Your task to perform on an android device: turn notification dots off Image 0: 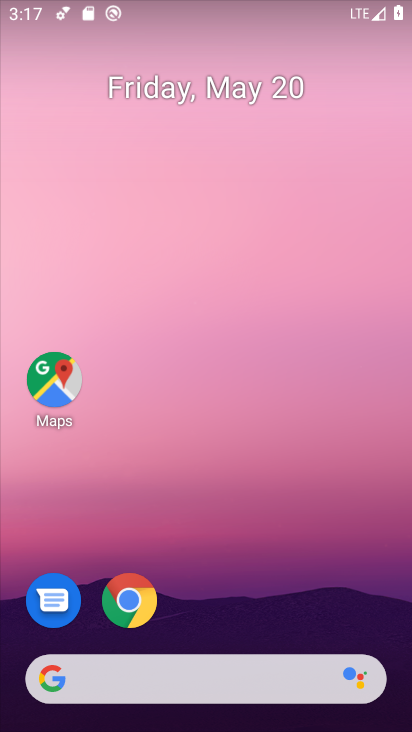
Step 0: drag from (329, 615) to (323, 160)
Your task to perform on an android device: turn notification dots off Image 1: 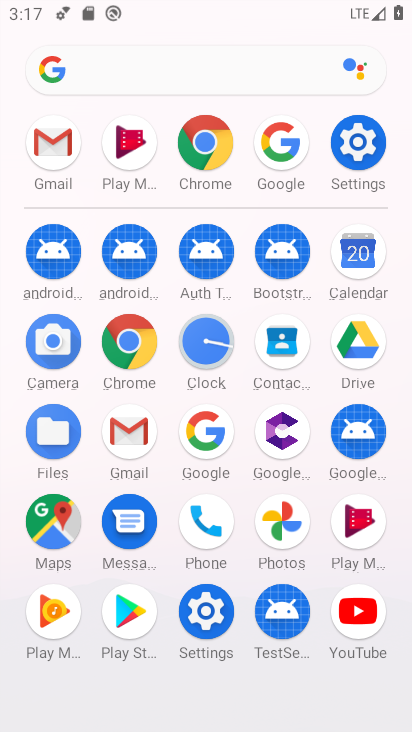
Step 1: click (357, 146)
Your task to perform on an android device: turn notification dots off Image 2: 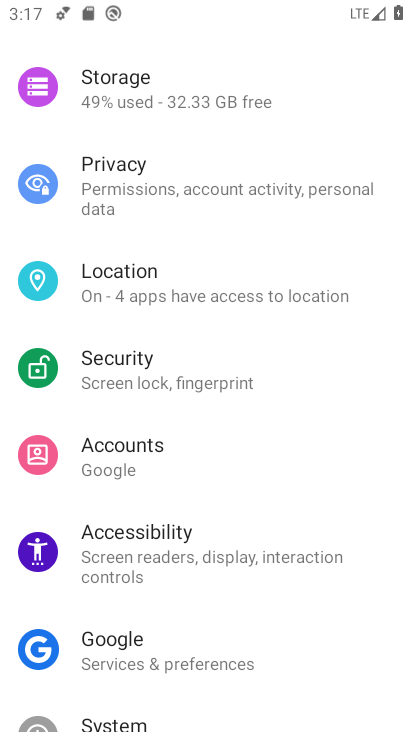
Step 2: drag from (366, 292) to (365, 516)
Your task to perform on an android device: turn notification dots off Image 3: 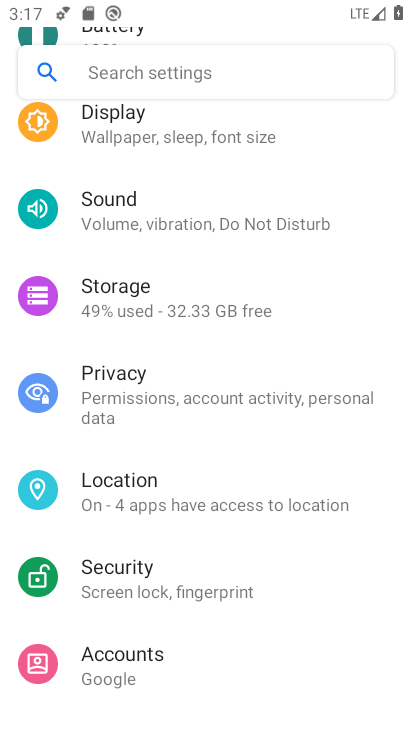
Step 3: drag from (361, 295) to (359, 528)
Your task to perform on an android device: turn notification dots off Image 4: 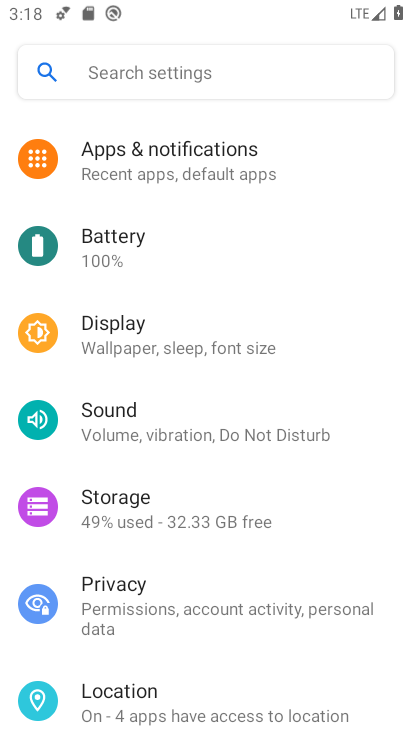
Step 4: drag from (357, 310) to (356, 506)
Your task to perform on an android device: turn notification dots off Image 5: 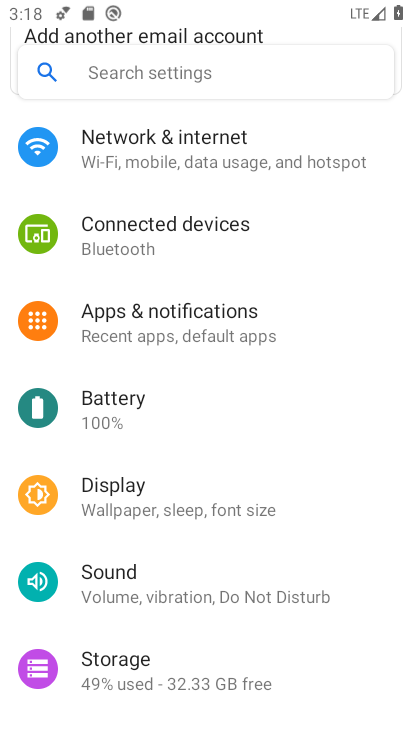
Step 5: drag from (355, 277) to (355, 471)
Your task to perform on an android device: turn notification dots off Image 6: 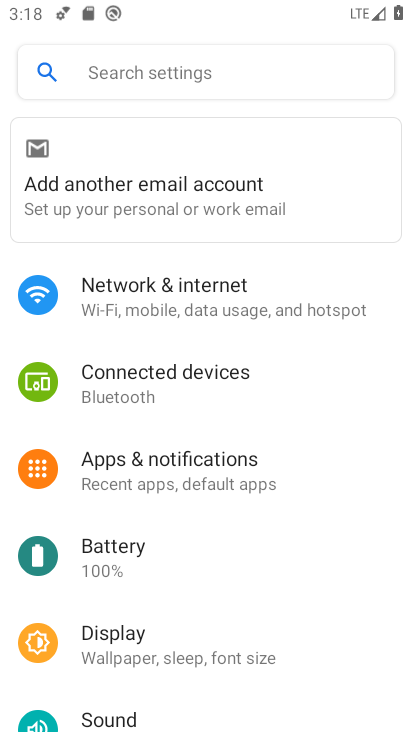
Step 6: drag from (335, 551) to (339, 425)
Your task to perform on an android device: turn notification dots off Image 7: 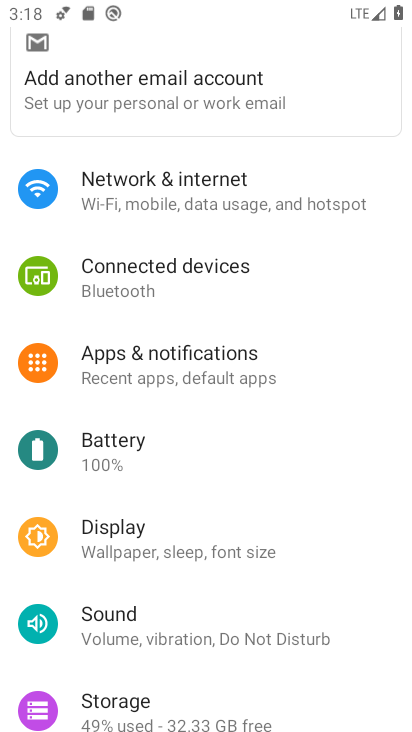
Step 7: click (218, 374)
Your task to perform on an android device: turn notification dots off Image 8: 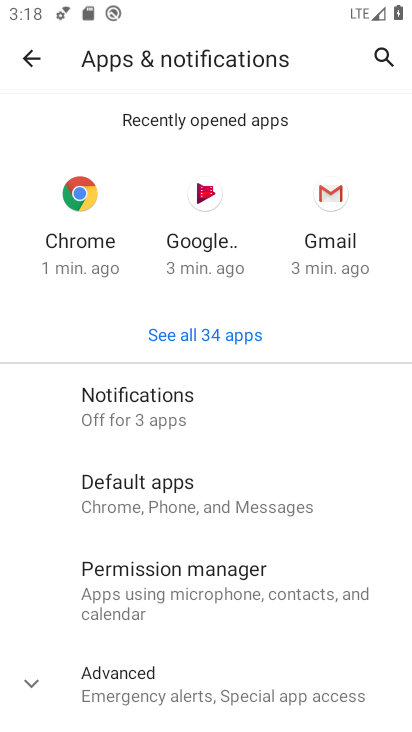
Step 8: drag from (321, 570) to (322, 389)
Your task to perform on an android device: turn notification dots off Image 9: 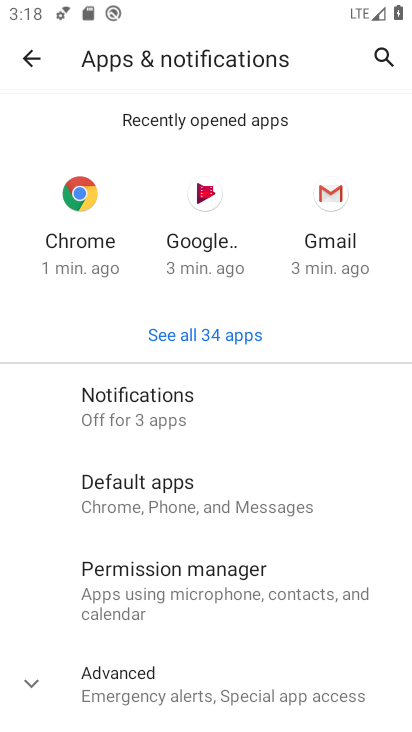
Step 9: drag from (323, 520) to (321, 363)
Your task to perform on an android device: turn notification dots off Image 10: 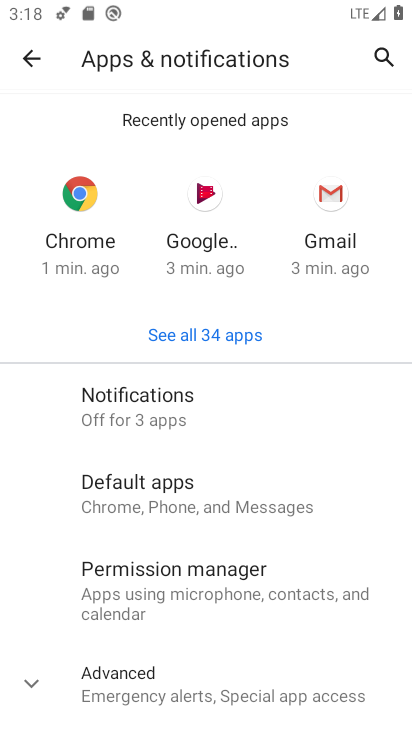
Step 10: click (176, 415)
Your task to perform on an android device: turn notification dots off Image 11: 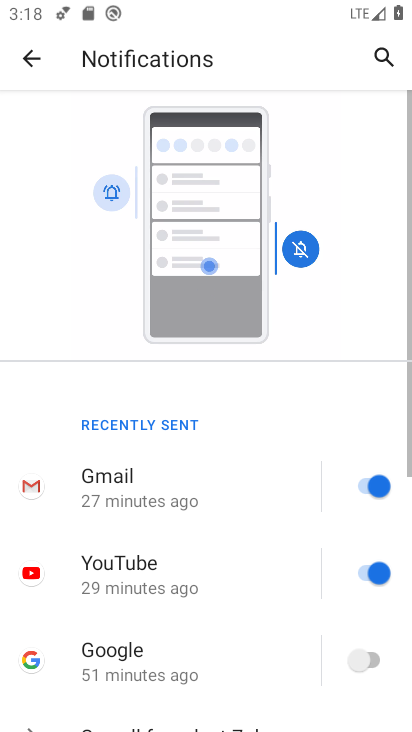
Step 11: drag from (285, 587) to (279, 411)
Your task to perform on an android device: turn notification dots off Image 12: 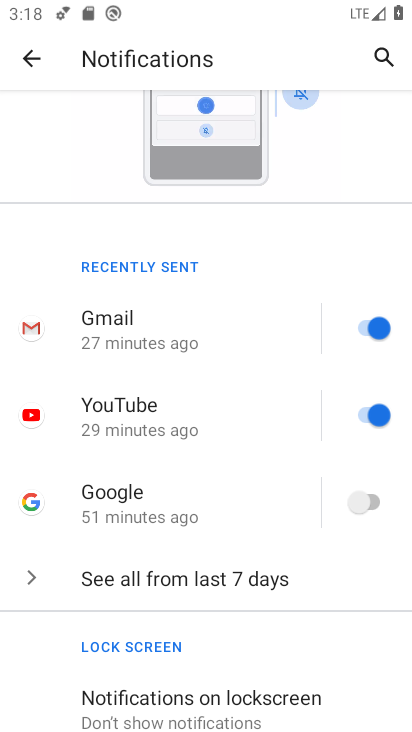
Step 12: drag from (255, 601) to (259, 395)
Your task to perform on an android device: turn notification dots off Image 13: 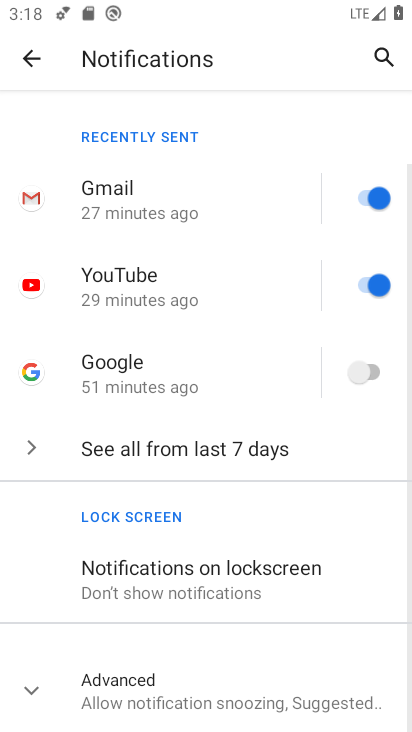
Step 13: drag from (258, 639) to (245, 446)
Your task to perform on an android device: turn notification dots off Image 14: 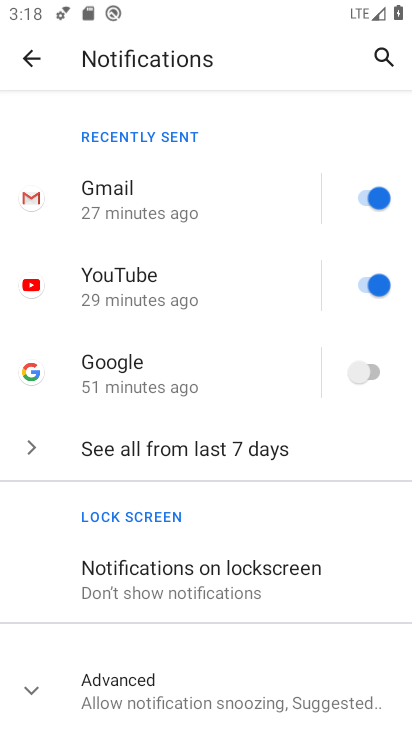
Step 14: click (202, 693)
Your task to perform on an android device: turn notification dots off Image 15: 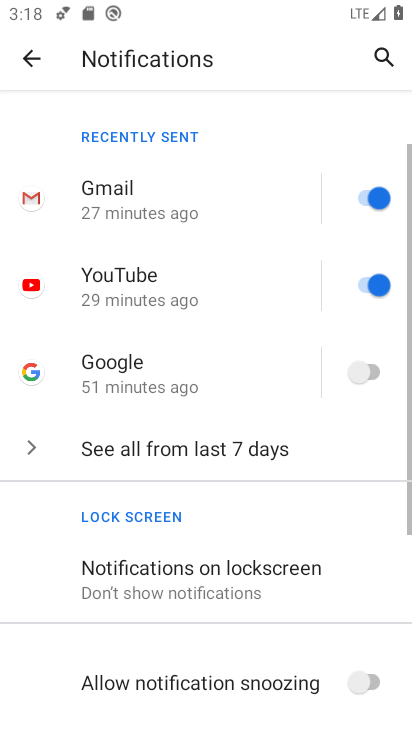
Step 15: drag from (273, 645) to (261, 464)
Your task to perform on an android device: turn notification dots off Image 16: 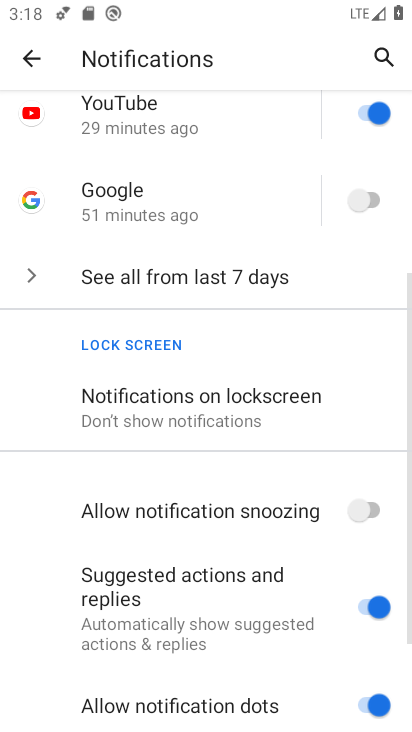
Step 16: drag from (268, 637) to (255, 480)
Your task to perform on an android device: turn notification dots off Image 17: 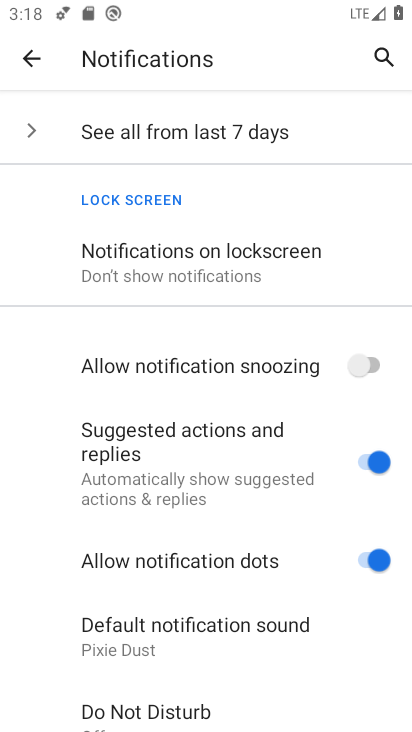
Step 17: drag from (250, 658) to (242, 515)
Your task to perform on an android device: turn notification dots off Image 18: 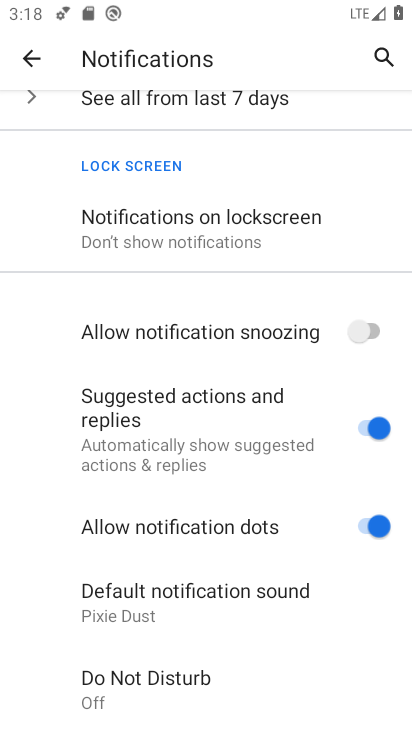
Step 18: drag from (262, 638) to (262, 498)
Your task to perform on an android device: turn notification dots off Image 19: 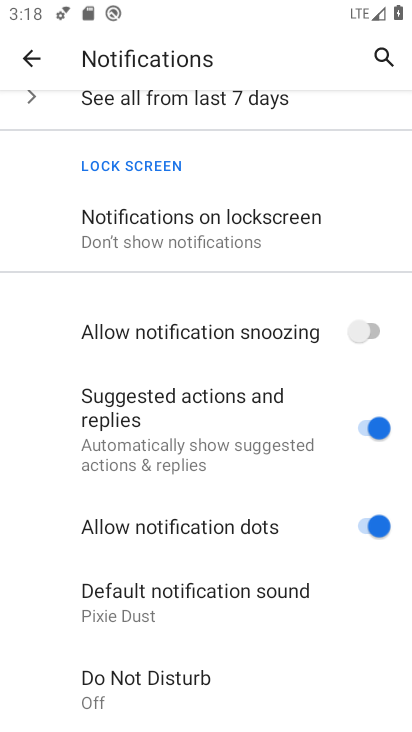
Step 19: click (372, 521)
Your task to perform on an android device: turn notification dots off Image 20: 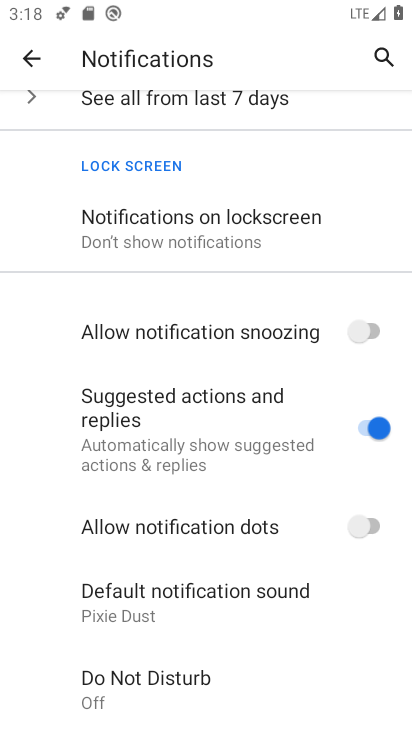
Step 20: task complete